Your task to perform on an android device: turn off data saver in the chrome app Image 0: 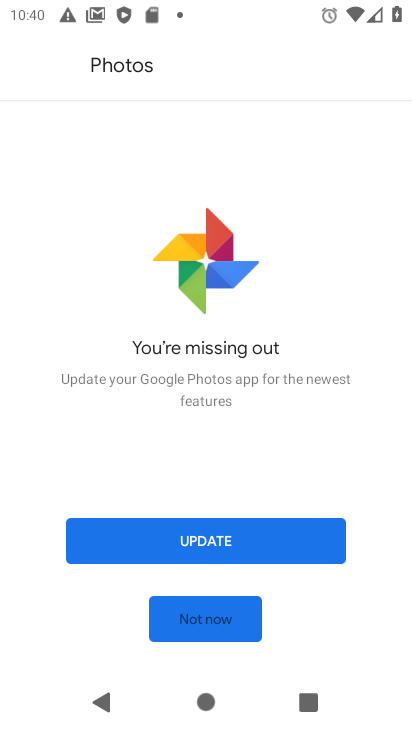
Step 0: press home button
Your task to perform on an android device: turn off data saver in the chrome app Image 1: 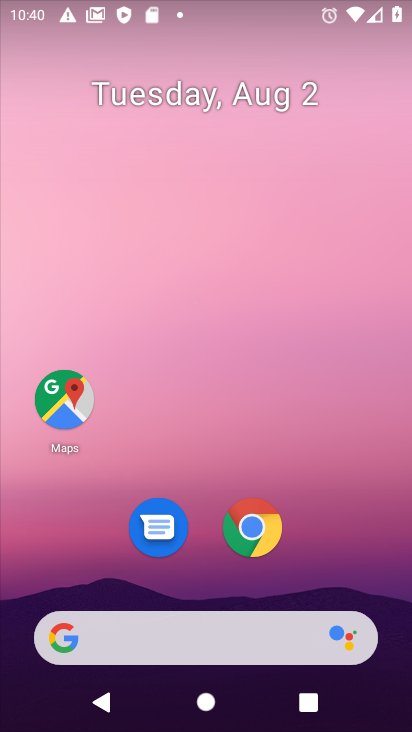
Step 1: click (249, 525)
Your task to perform on an android device: turn off data saver in the chrome app Image 2: 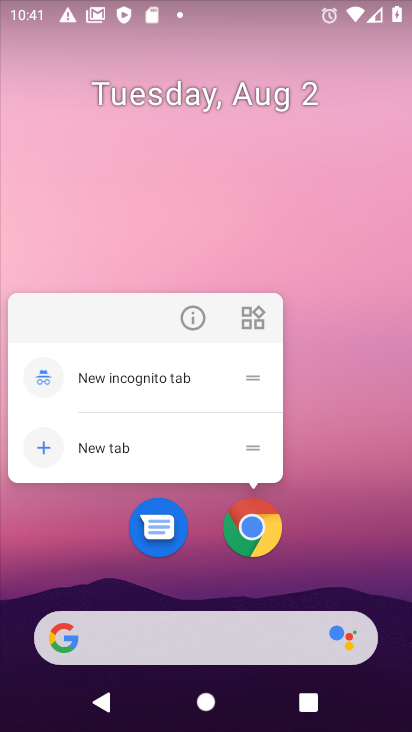
Step 2: click (254, 526)
Your task to perform on an android device: turn off data saver in the chrome app Image 3: 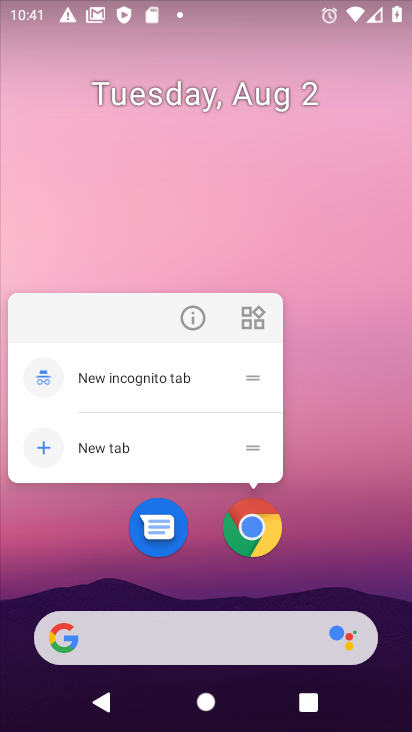
Step 3: click (244, 516)
Your task to perform on an android device: turn off data saver in the chrome app Image 4: 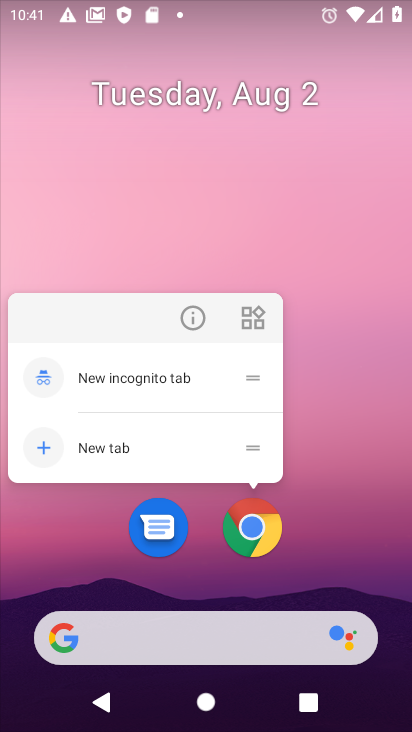
Step 4: click (359, 495)
Your task to perform on an android device: turn off data saver in the chrome app Image 5: 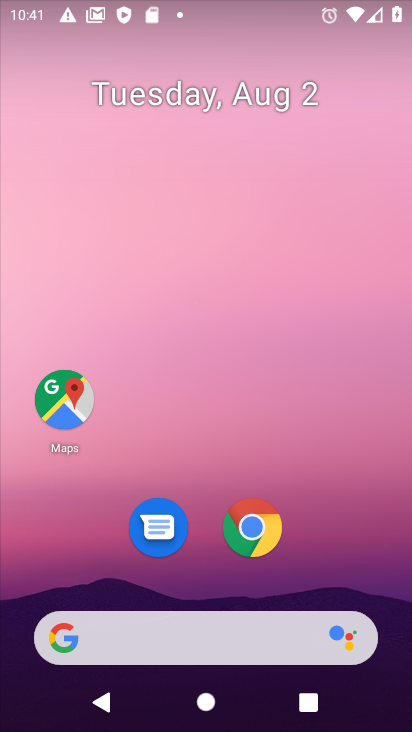
Step 5: click (251, 520)
Your task to perform on an android device: turn off data saver in the chrome app Image 6: 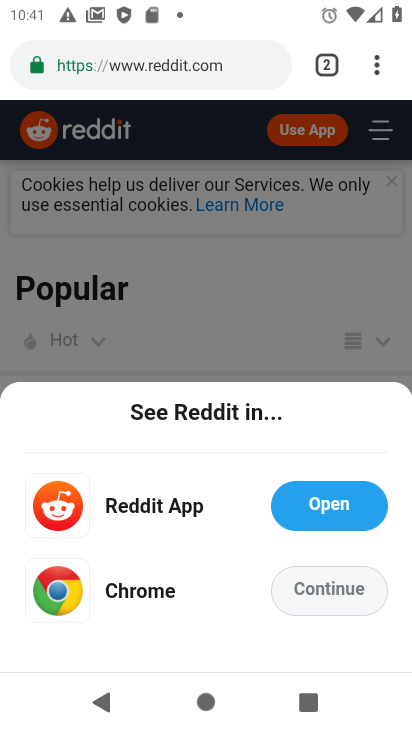
Step 6: click (336, 593)
Your task to perform on an android device: turn off data saver in the chrome app Image 7: 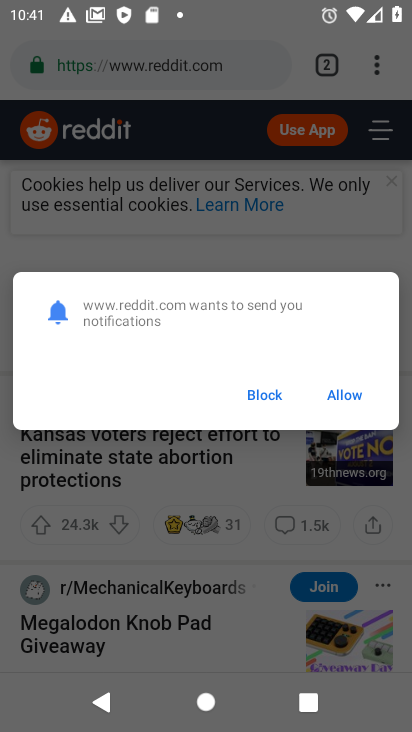
Step 7: click (346, 401)
Your task to perform on an android device: turn off data saver in the chrome app Image 8: 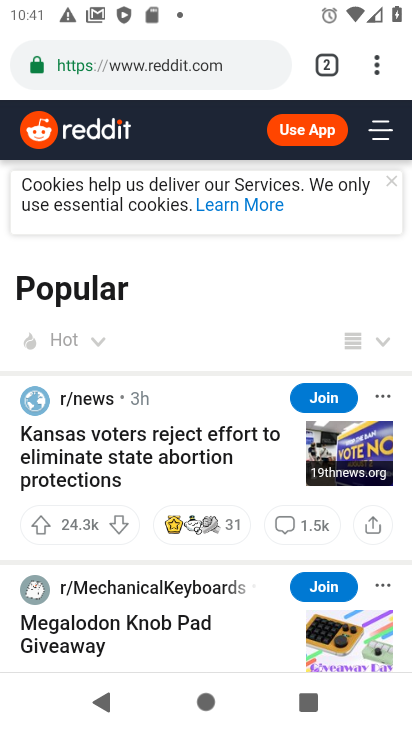
Step 8: click (375, 68)
Your task to perform on an android device: turn off data saver in the chrome app Image 9: 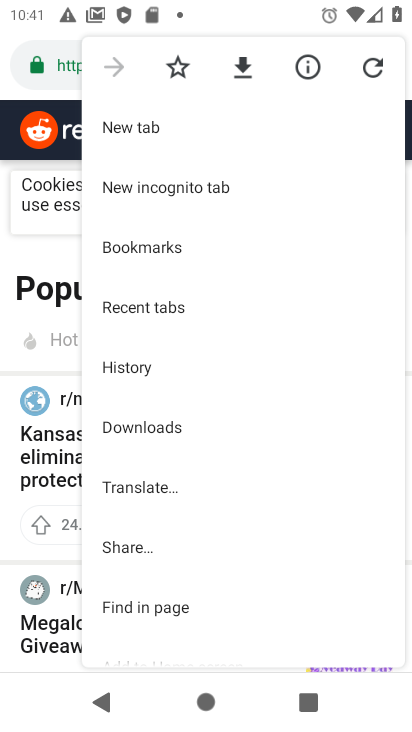
Step 9: drag from (226, 574) to (223, 18)
Your task to perform on an android device: turn off data saver in the chrome app Image 10: 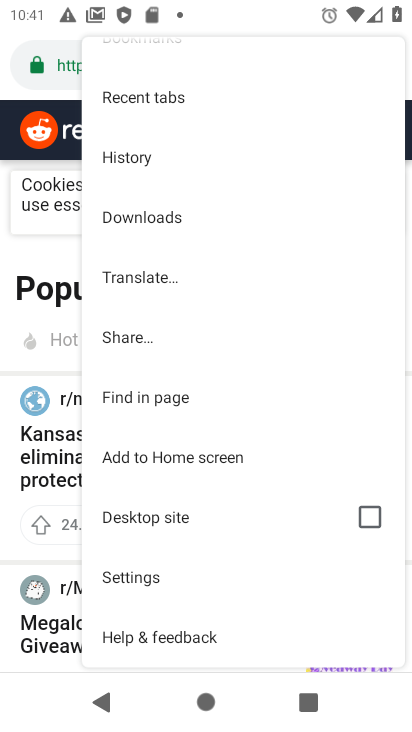
Step 10: click (168, 578)
Your task to perform on an android device: turn off data saver in the chrome app Image 11: 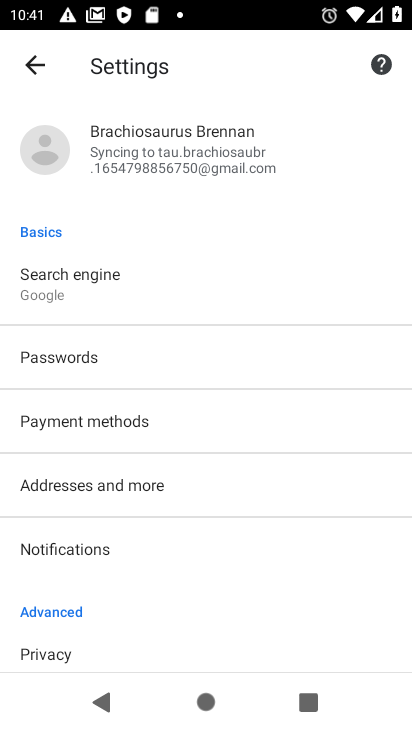
Step 11: drag from (149, 632) to (177, 138)
Your task to perform on an android device: turn off data saver in the chrome app Image 12: 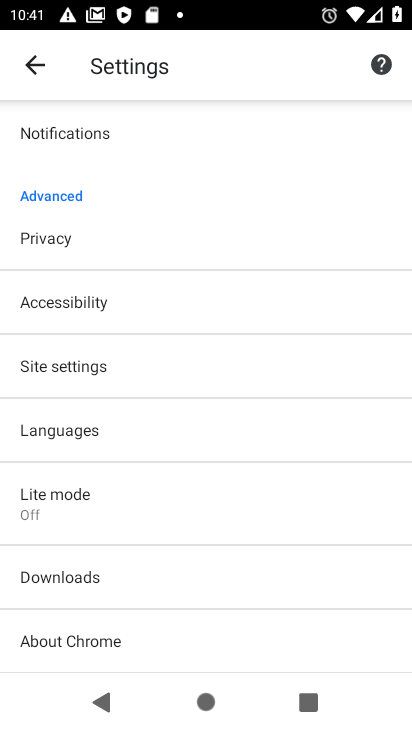
Step 12: click (112, 510)
Your task to perform on an android device: turn off data saver in the chrome app Image 13: 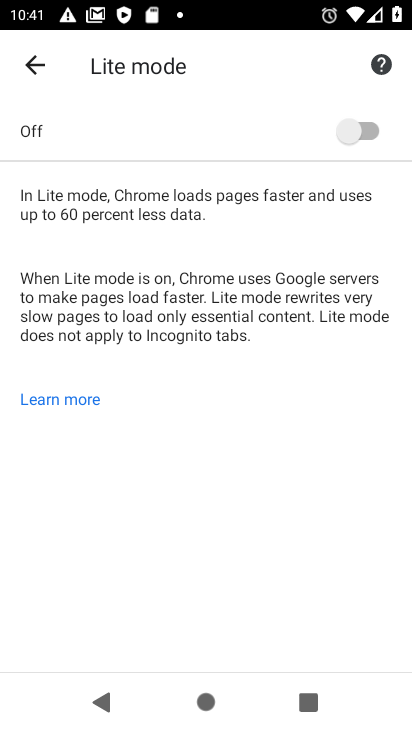
Step 13: task complete